Your task to perform on an android device: toggle wifi Image 0: 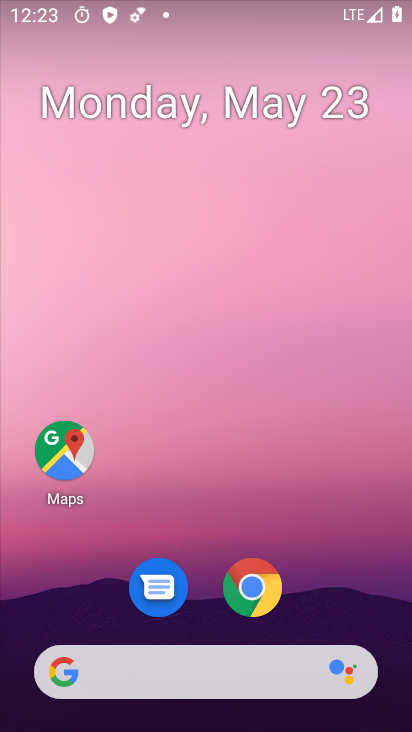
Step 0: drag from (122, 7) to (108, 531)
Your task to perform on an android device: toggle wifi Image 1: 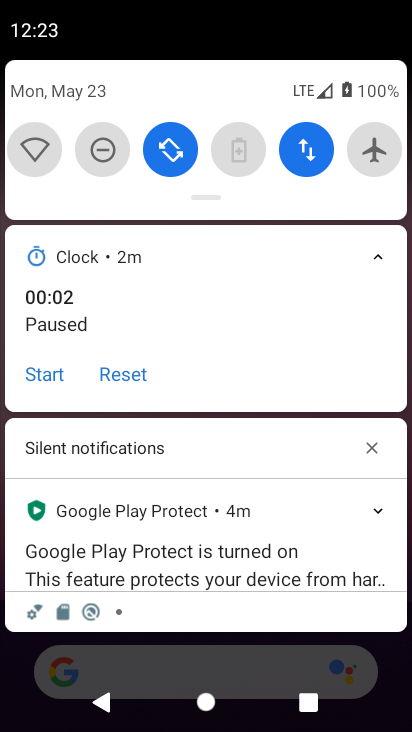
Step 1: click (51, 136)
Your task to perform on an android device: toggle wifi Image 2: 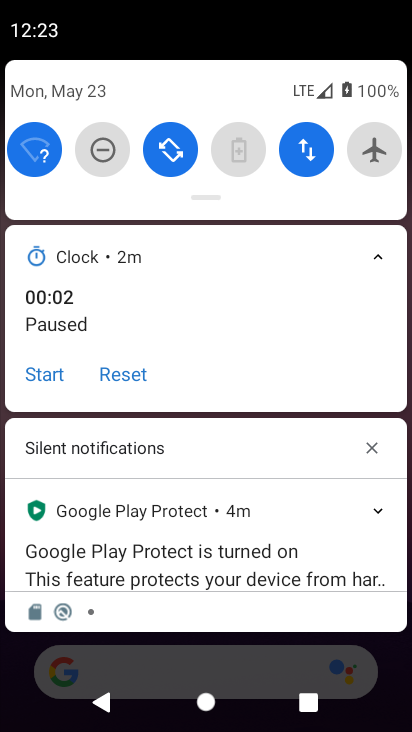
Step 2: task complete